Your task to perform on an android device: Toggle the flashlight Image 0: 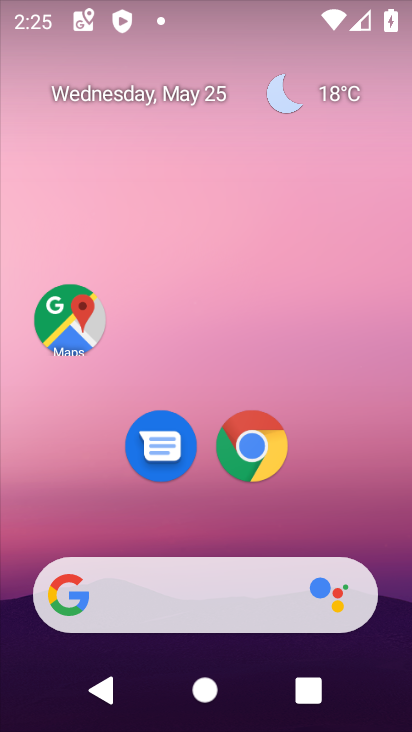
Step 0: drag from (211, 304) to (206, 99)
Your task to perform on an android device: Toggle the flashlight Image 1: 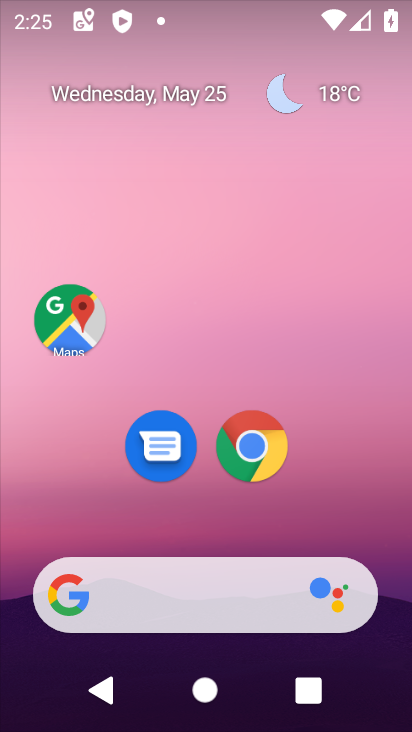
Step 1: task complete